Your task to perform on an android device: Turn on the flashlight Image 0: 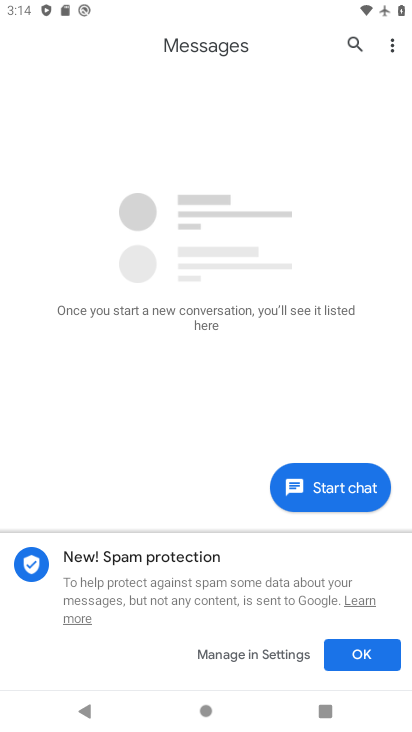
Step 0: press home button
Your task to perform on an android device: Turn on the flashlight Image 1: 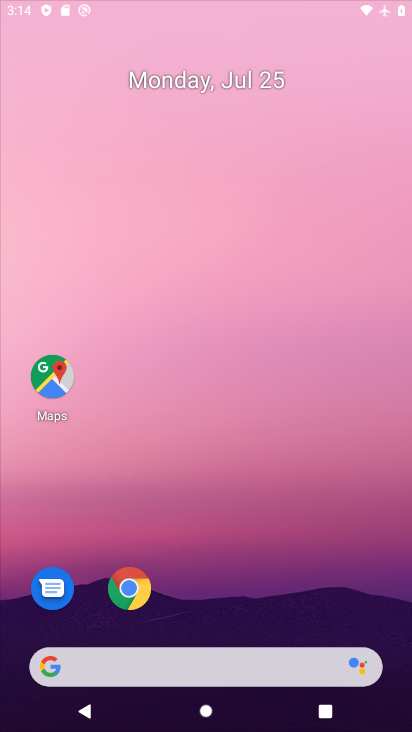
Step 1: drag from (190, 296) to (189, 49)
Your task to perform on an android device: Turn on the flashlight Image 2: 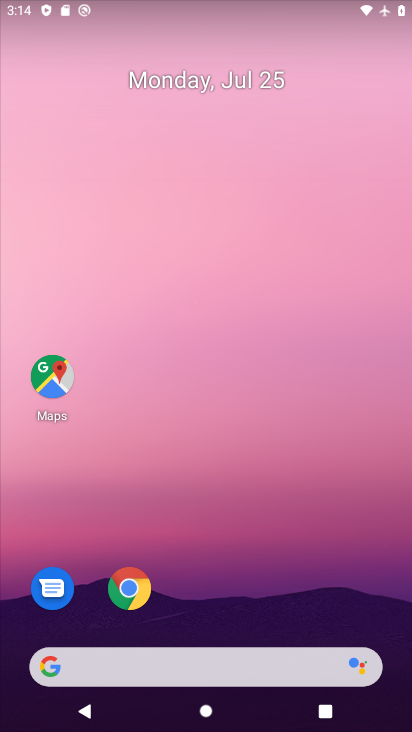
Step 2: drag from (226, 724) to (229, 58)
Your task to perform on an android device: Turn on the flashlight Image 3: 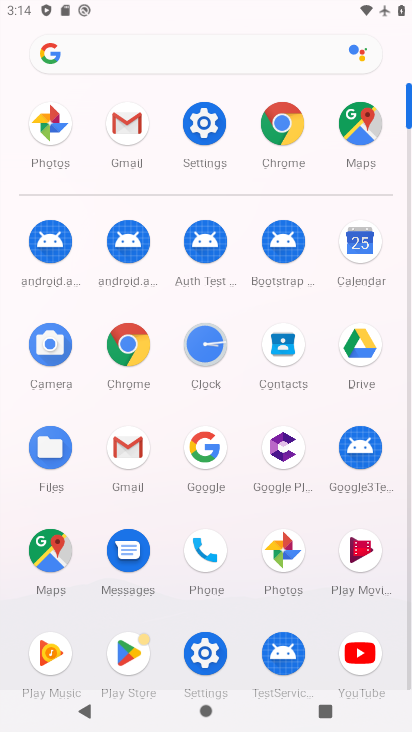
Step 3: click (204, 127)
Your task to perform on an android device: Turn on the flashlight Image 4: 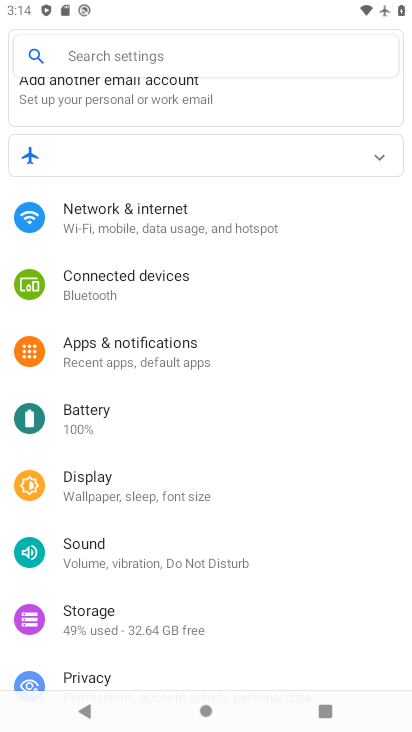
Step 4: task complete